Your task to perform on an android device: Go to battery settings Image 0: 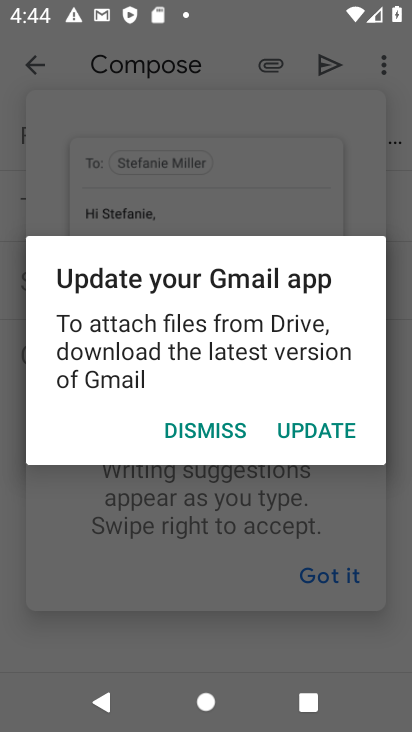
Step 0: press home button
Your task to perform on an android device: Go to battery settings Image 1: 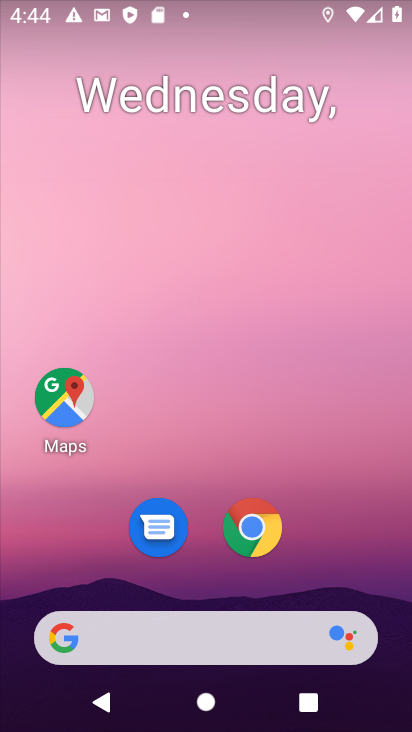
Step 1: drag from (214, 586) to (175, 81)
Your task to perform on an android device: Go to battery settings Image 2: 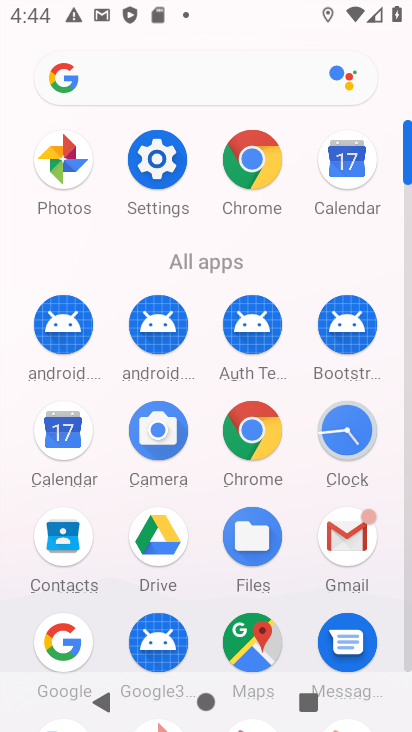
Step 2: click (144, 149)
Your task to perform on an android device: Go to battery settings Image 3: 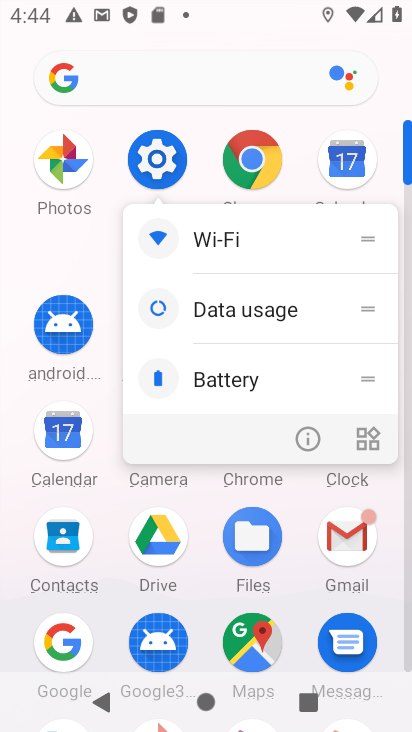
Step 3: click (161, 169)
Your task to perform on an android device: Go to battery settings Image 4: 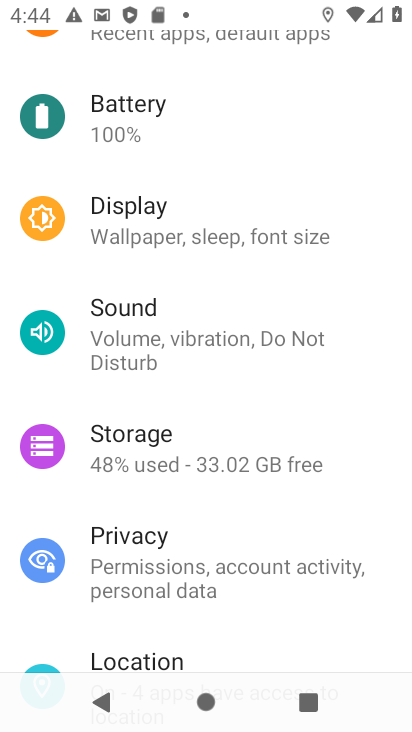
Step 4: click (151, 101)
Your task to perform on an android device: Go to battery settings Image 5: 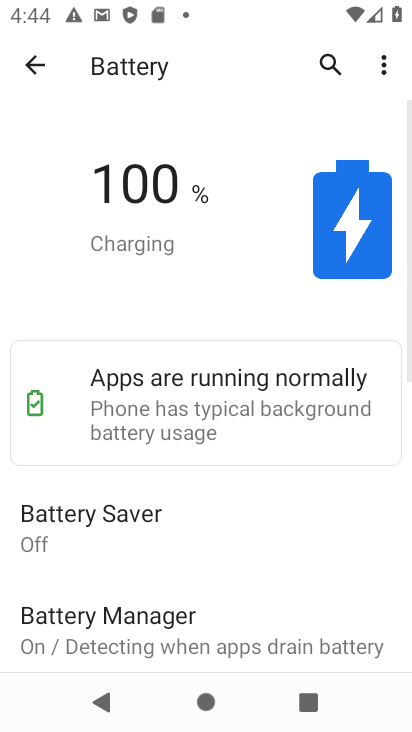
Step 5: task complete